Your task to perform on an android device: toggle javascript in the chrome app Image 0: 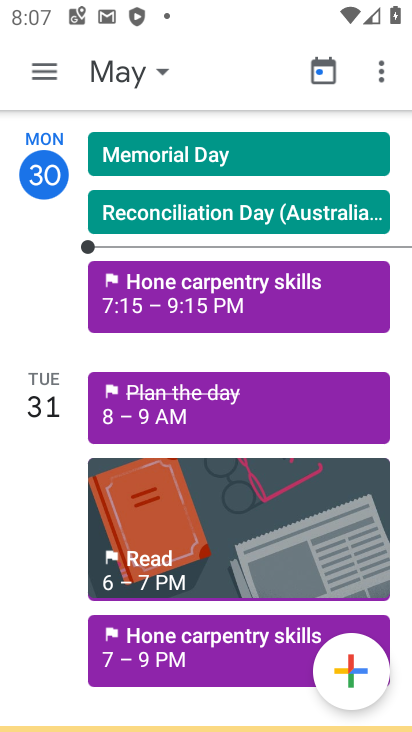
Step 0: task complete